Your task to perform on an android device: change the clock display to show seconds Image 0: 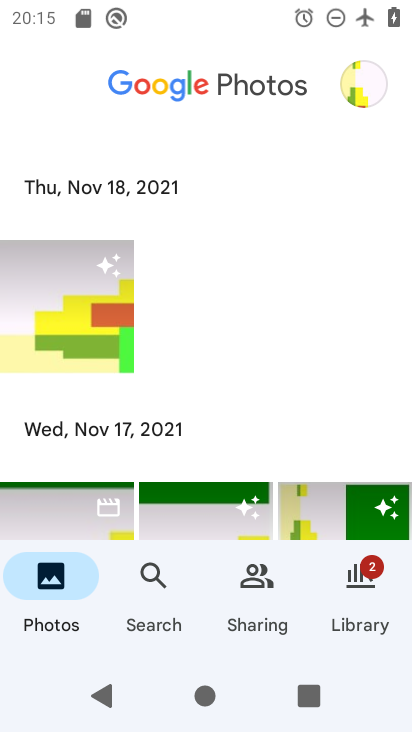
Step 0: press home button
Your task to perform on an android device: change the clock display to show seconds Image 1: 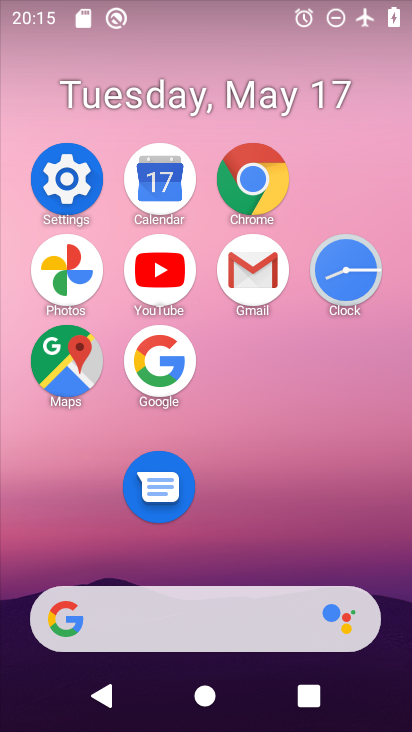
Step 1: click (358, 286)
Your task to perform on an android device: change the clock display to show seconds Image 2: 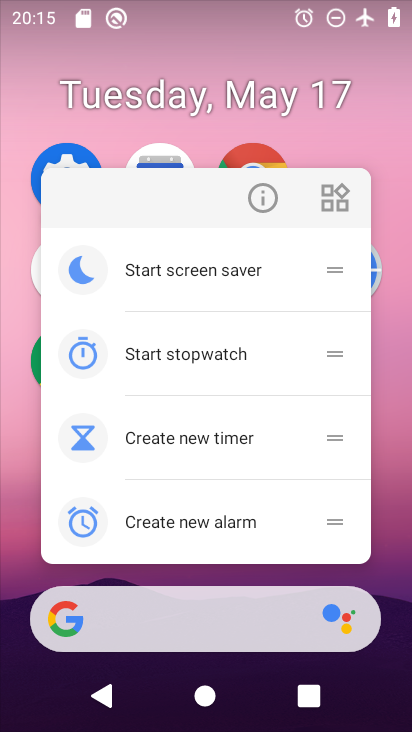
Step 2: click (396, 300)
Your task to perform on an android device: change the clock display to show seconds Image 3: 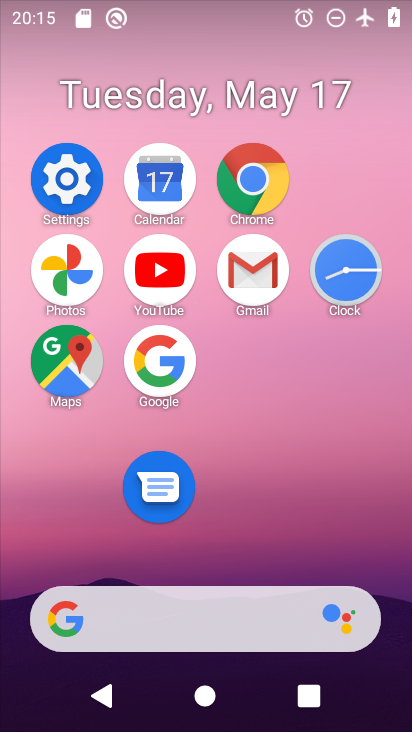
Step 3: click (373, 280)
Your task to perform on an android device: change the clock display to show seconds Image 4: 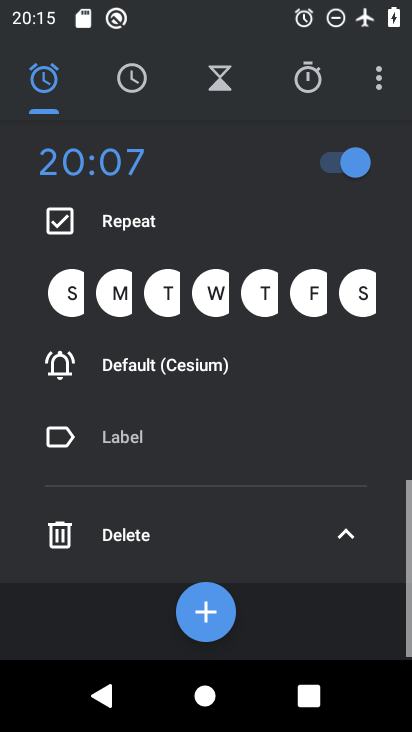
Step 4: click (371, 72)
Your task to perform on an android device: change the clock display to show seconds Image 5: 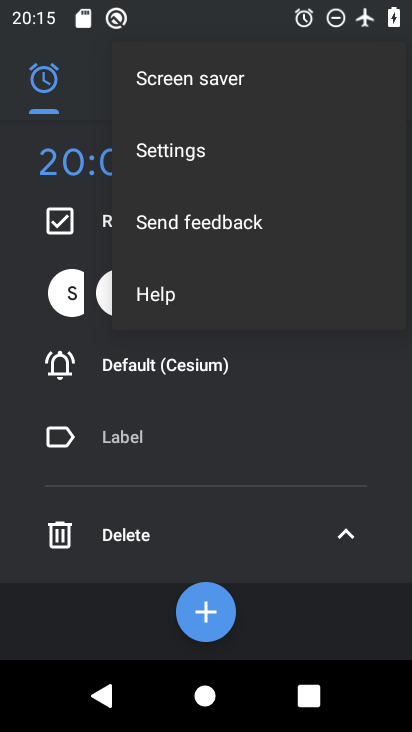
Step 5: click (199, 152)
Your task to perform on an android device: change the clock display to show seconds Image 6: 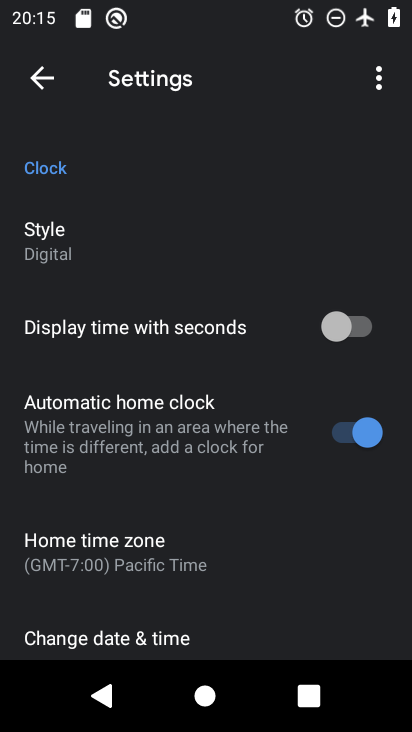
Step 6: click (350, 327)
Your task to perform on an android device: change the clock display to show seconds Image 7: 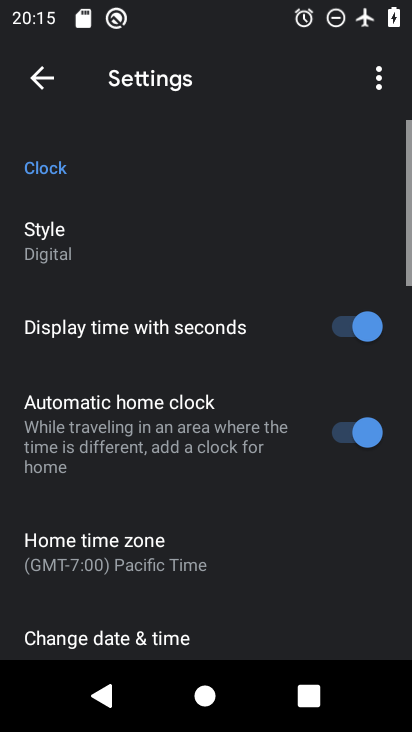
Step 7: task complete